Your task to perform on an android device: What's on my calendar today? Image 0: 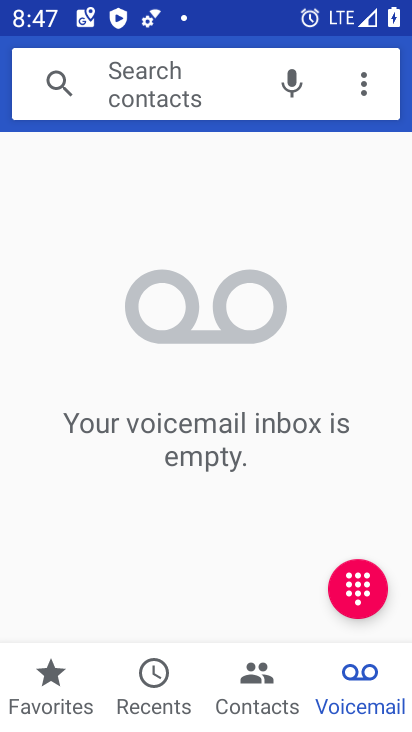
Step 0: press home button
Your task to perform on an android device: What's on my calendar today? Image 1: 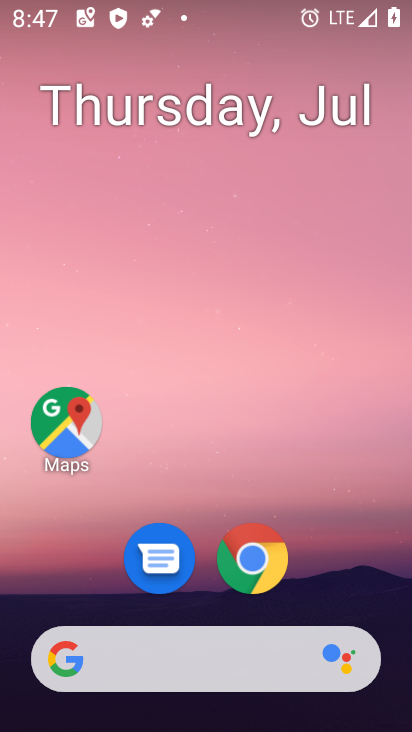
Step 1: drag from (214, 555) to (260, 12)
Your task to perform on an android device: What's on my calendar today? Image 2: 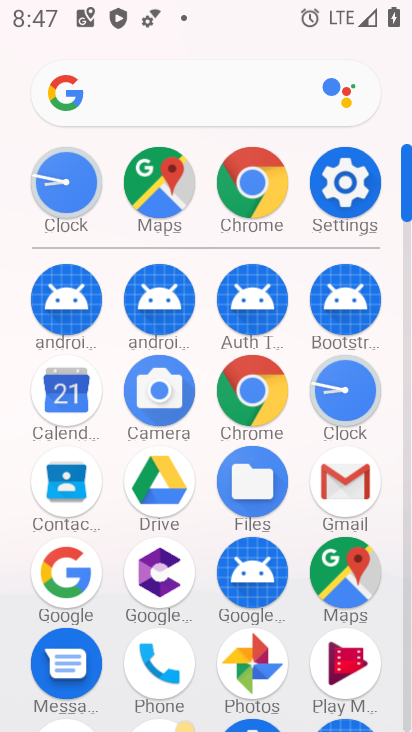
Step 2: drag from (199, 496) to (212, 259)
Your task to perform on an android device: What's on my calendar today? Image 3: 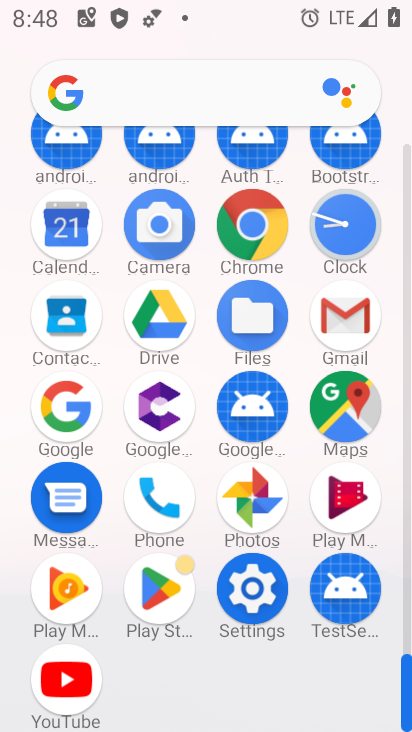
Step 3: drag from (192, 450) to (177, 639)
Your task to perform on an android device: What's on my calendar today? Image 4: 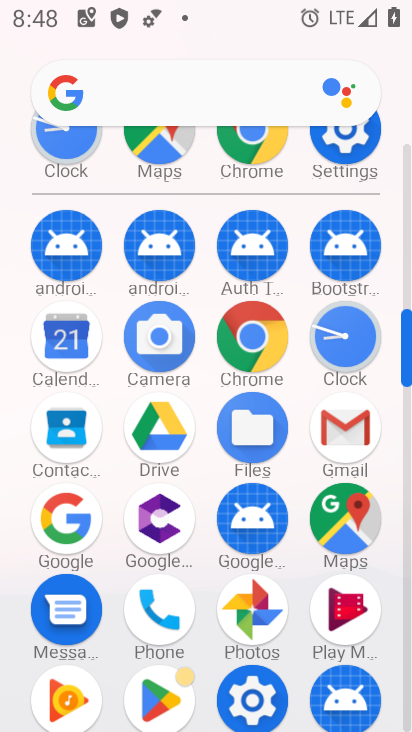
Step 4: drag from (224, 282) to (205, 489)
Your task to perform on an android device: What's on my calendar today? Image 5: 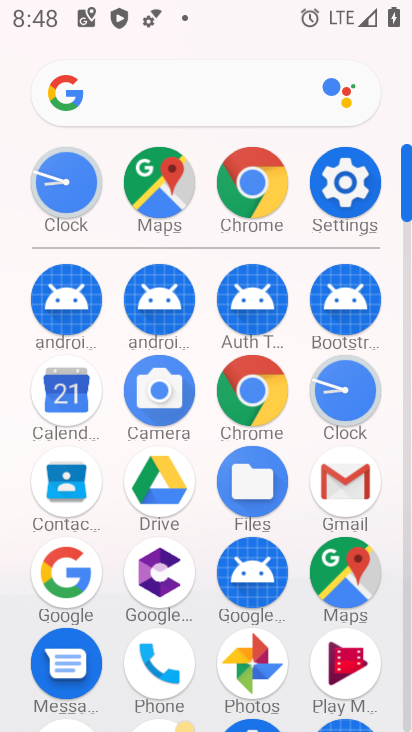
Step 5: click (82, 392)
Your task to perform on an android device: What's on my calendar today? Image 6: 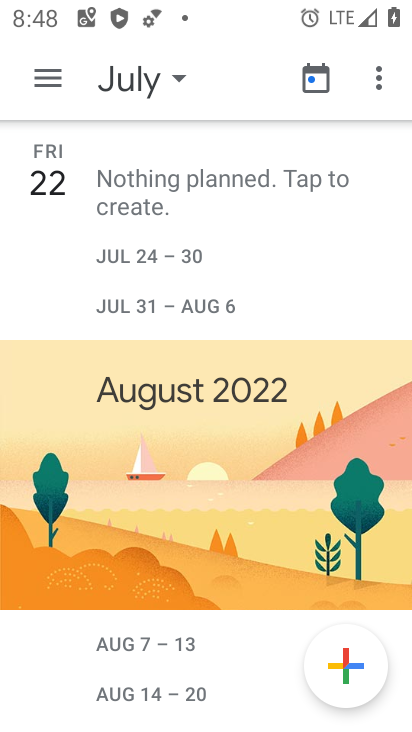
Step 6: click (149, 83)
Your task to perform on an android device: What's on my calendar today? Image 7: 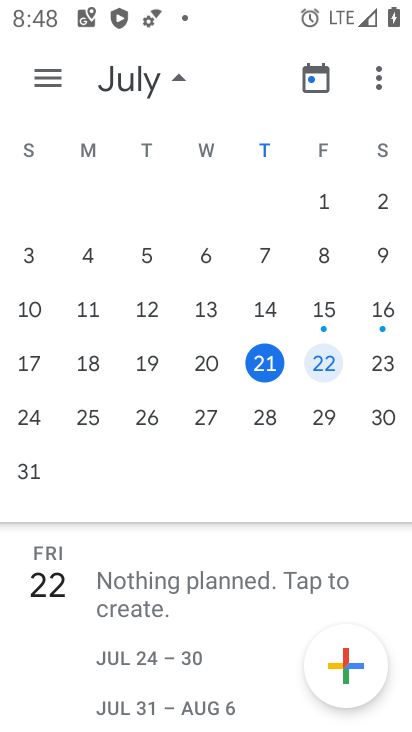
Step 7: click (264, 372)
Your task to perform on an android device: What's on my calendar today? Image 8: 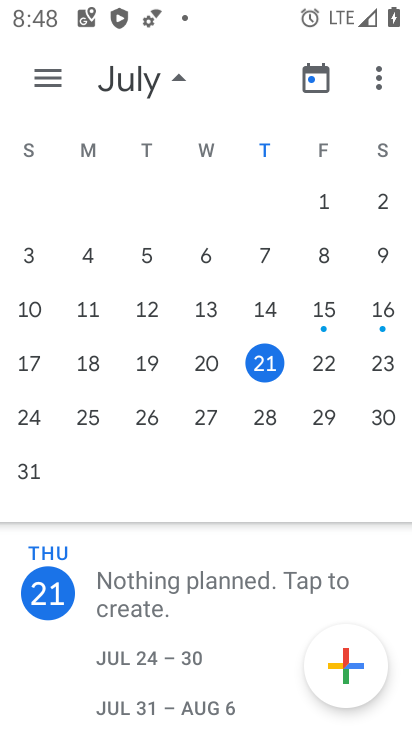
Step 8: task complete